Your task to perform on an android device: change your default location settings in chrome Image 0: 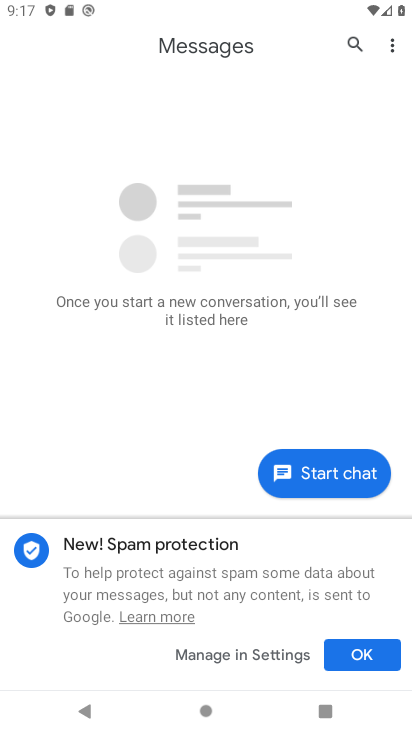
Step 0: press home button
Your task to perform on an android device: change your default location settings in chrome Image 1: 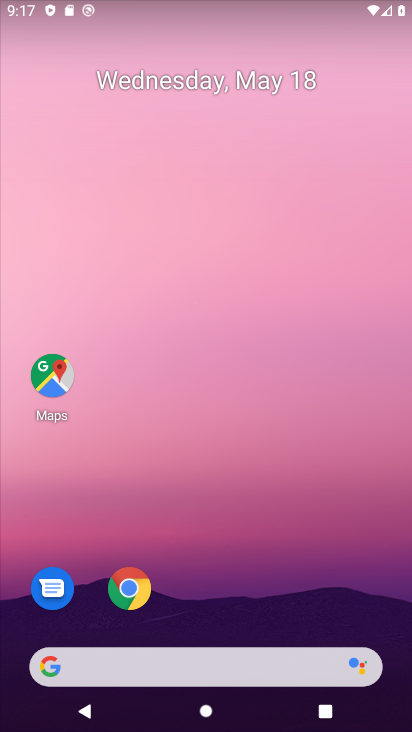
Step 1: drag from (250, 682) to (239, 240)
Your task to perform on an android device: change your default location settings in chrome Image 2: 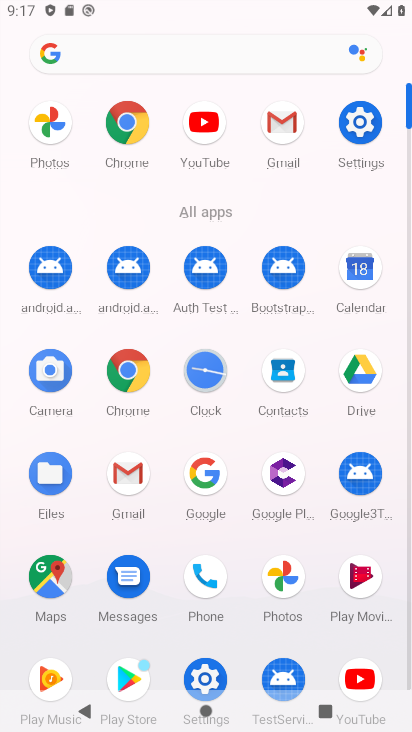
Step 2: click (123, 353)
Your task to perform on an android device: change your default location settings in chrome Image 3: 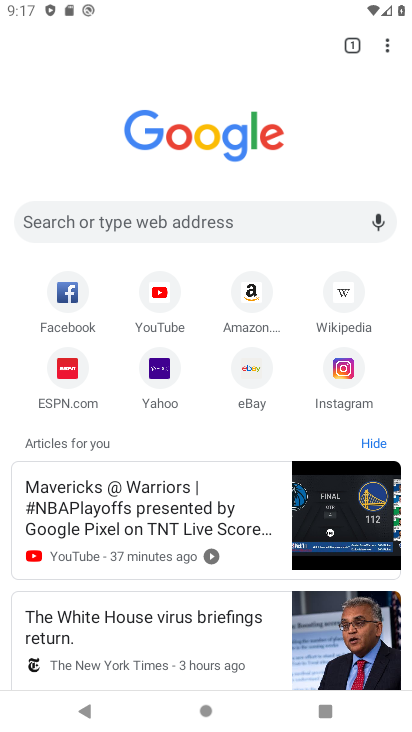
Step 3: click (376, 60)
Your task to perform on an android device: change your default location settings in chrome Image 4: 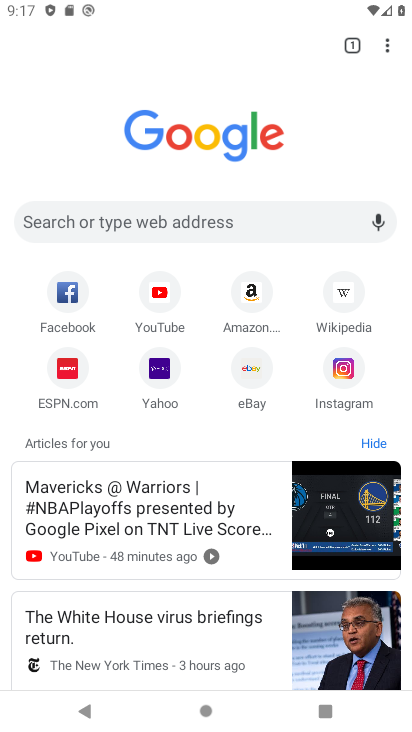
Step 4: click (387, 58)
Your task to perform on an android device: change your default location settings in chrome Image 5: 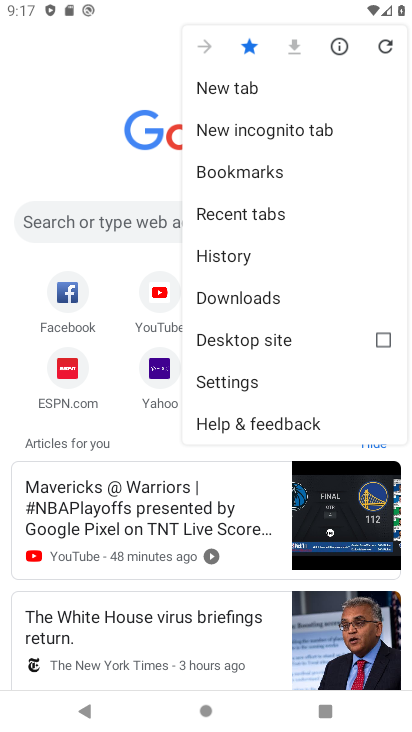
Step 5: click (238, 374)
Your task to perform on an android device: change your default location settings in chrome Image 6: 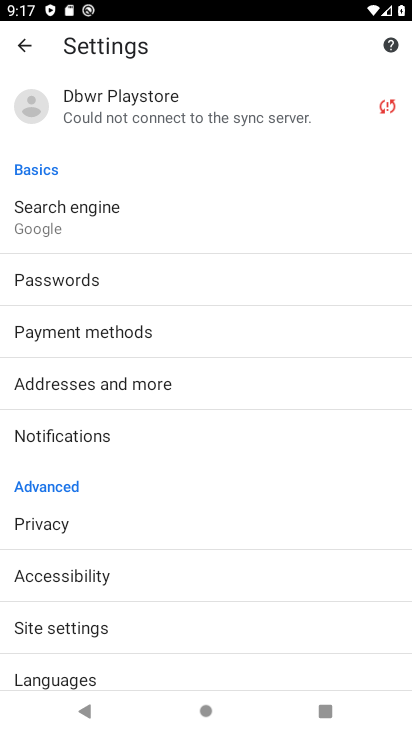
Step 6: click (90, 622)
Your task to perform on an android device: change your default location settings in chrome Image 7: 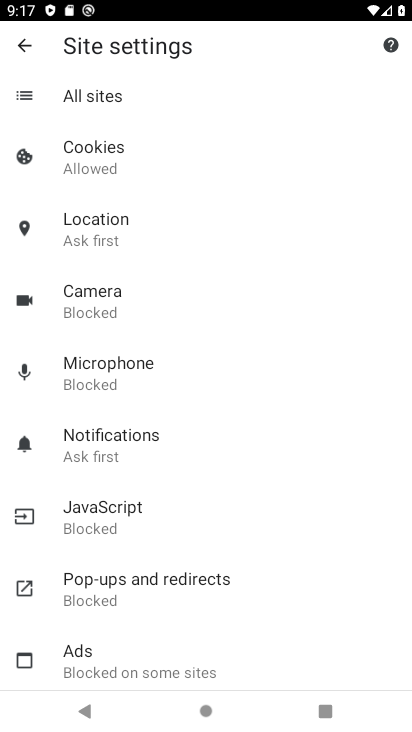
Step 7: click (131, 232)
Your task to perform on an android device: change your default location settings in chrome Image 8: 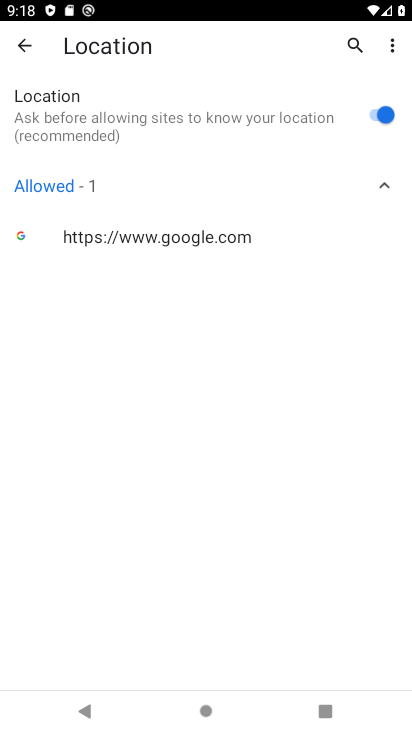
Step 8: click (391, 112)
Your task to perform on an android device: change your default location settings in chrome Image 9: 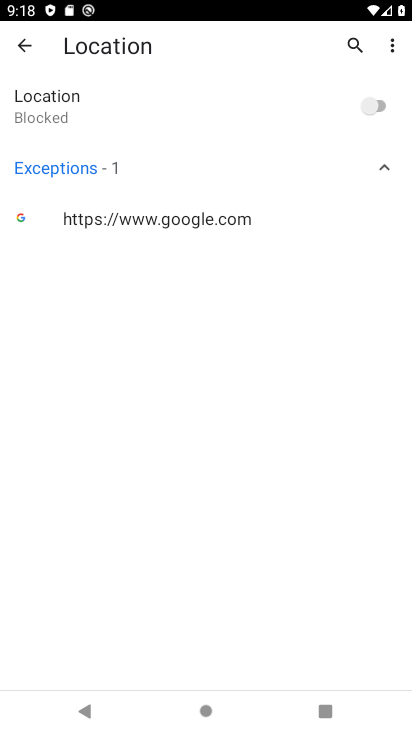
Step 9: task complete